Your task to perform on an android device: When is my next meeting? Image 0: 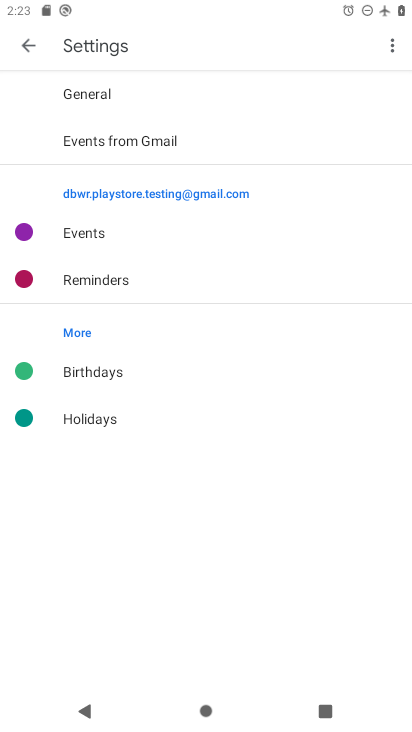
Step 0: press back button
Your task to perform on an android device: When is my next meeting? Image 1: 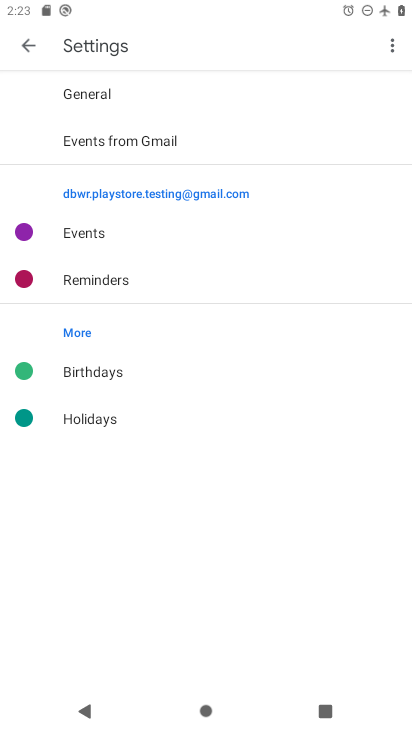
Step 1: press back button
Your task to perform on an android device: When is my next meeting? Image 2: 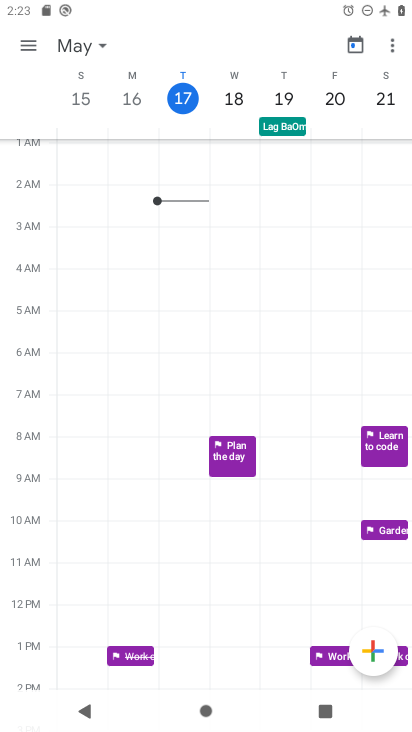
Step 2: click (34, 50)
Your task to perform on an android device: When is my next meeting? Image 3: 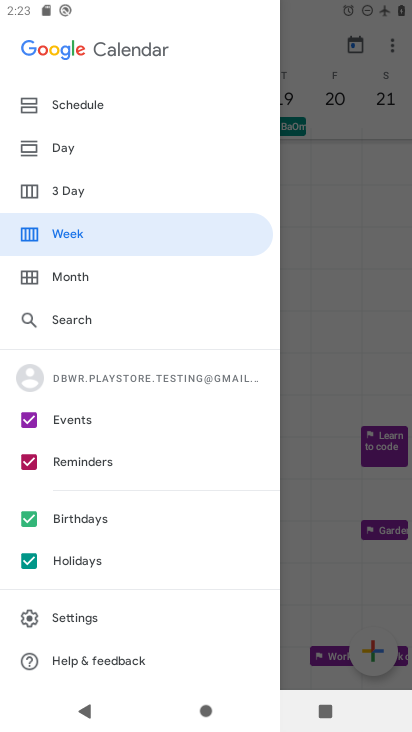
Step 3: click (126, 103)
Your task to perform on an android device: When is my next meeting? Image 4: 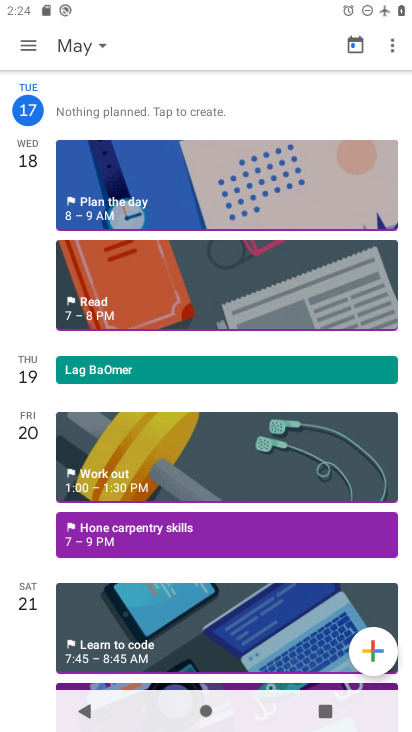
Step 4: drag from (134, 663) to (140, 586)
Your task to perform on an android device: When is my next meeting? Image 5: 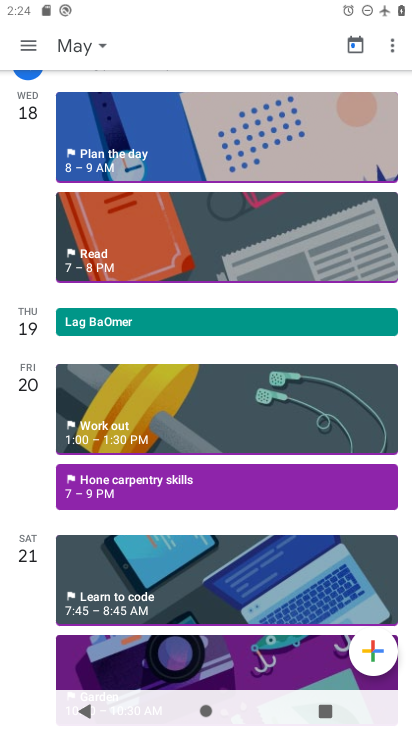
Step 5: drag from (144, 134) to (139, 265)
Your task to perform on an android device: When is my next meeting? Image 6: 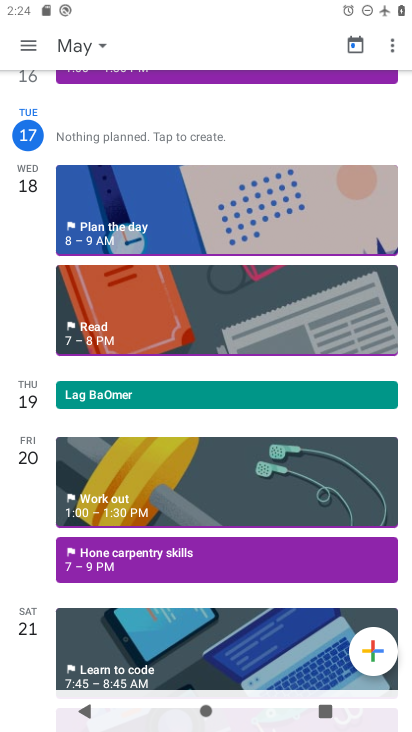
Step 6: click (136, 236)
Your task to perform on an android device: When is my next meeting? Image 7: 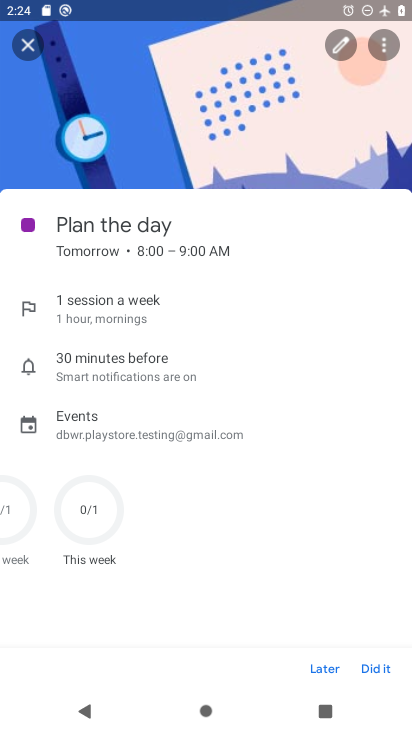
Step 7: task complete